Your task to perform on an android device: Open sound settings Image 0: 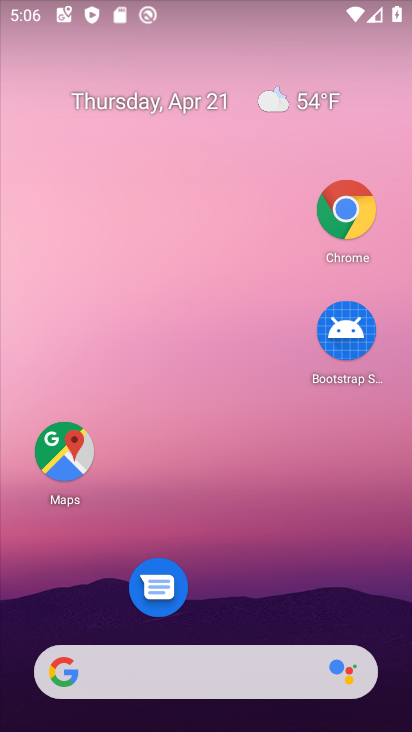
Step 0: drag from (290, 601) to (334, 153)
Your task to perform on an android device: Open sound settings Image 1: 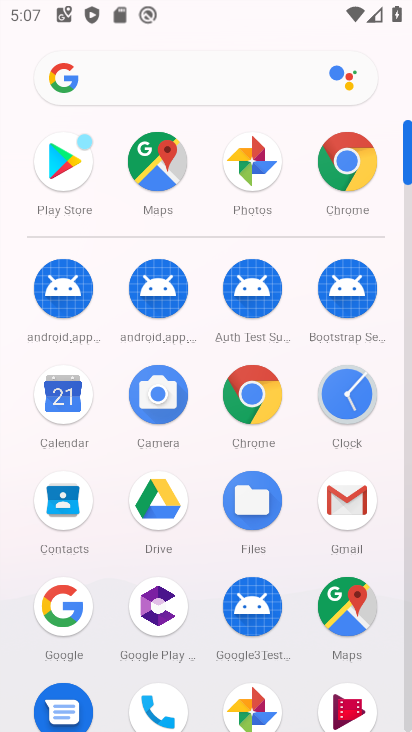
Step 1: drag from (203, 240) to (214, 44)
Your task to perform on an android device: Open sound settings Image 2: 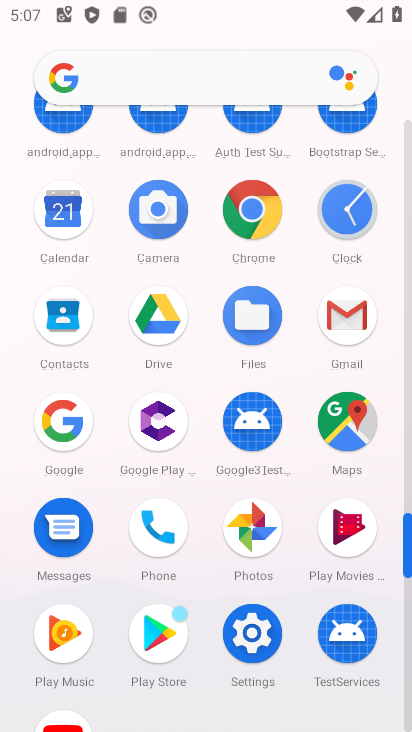
Step 2: click (239, 635)
Your task to perform on an android device: Open sound settings Image 3: 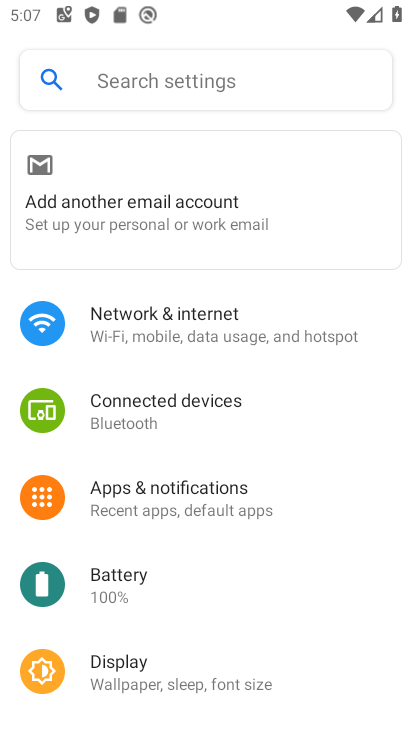
Step 3: drag from (341, 668) to (326, 187)
Your task to perform on an android device: Open sound settings Image 4: 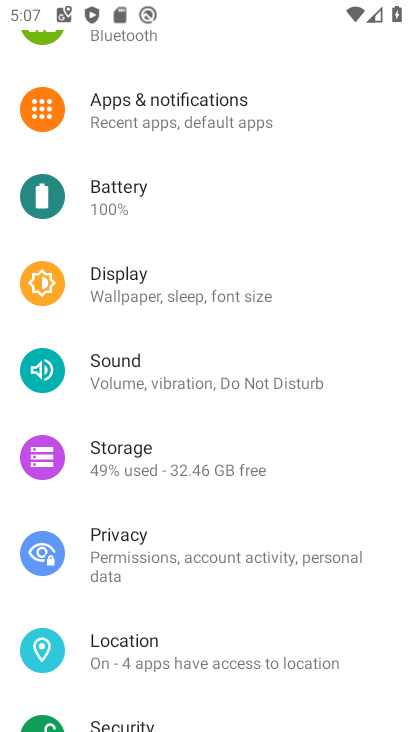
Step 4: click (98, 365)
Your task to perform on an android device: Open sound settings Image 5: 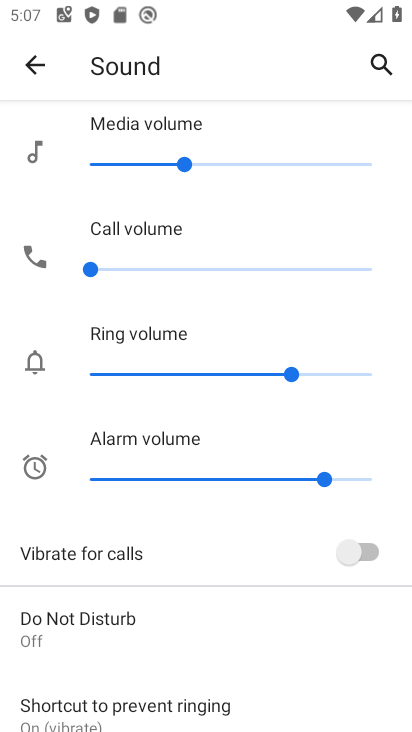
Step 5: task complete